Your task to perform on an android device: empty trash in the gmail app Image 0: 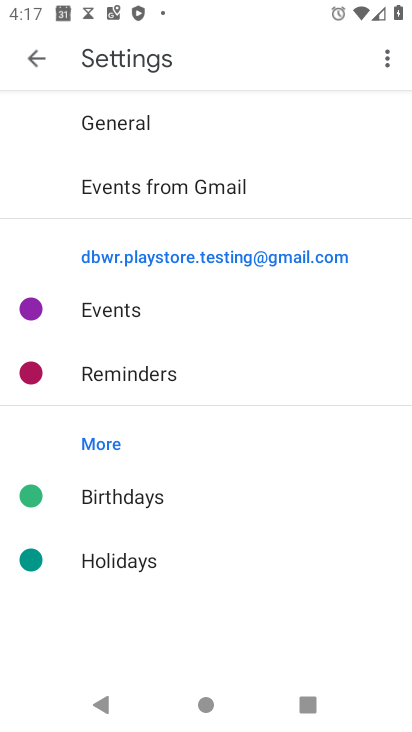
Step 0: press home button
Your task to perform on an android device: empty trash in the gmail app Image 1: 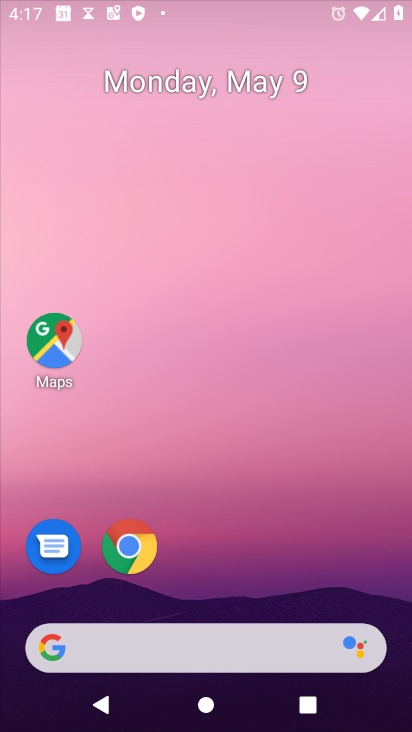
Step 1: drag from (298, 202) to (408, 21)
Your task to perform on an android device: empty trash in the gmail app Image 2: 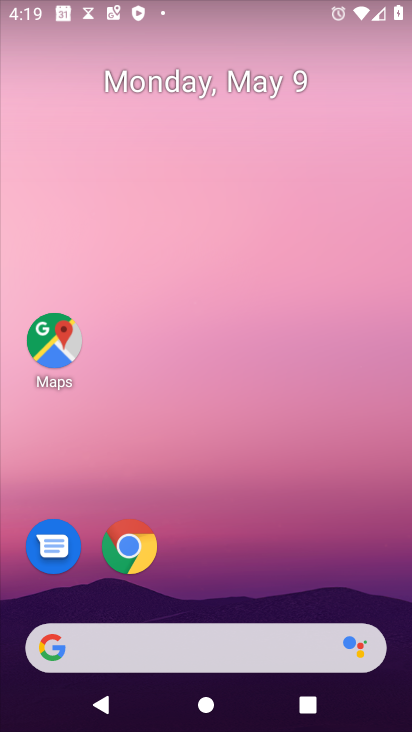
Step 2: drag from (316, 529) to (286, 159)
Your task to perform on an android device: empty trash in the gmail app Image 3: 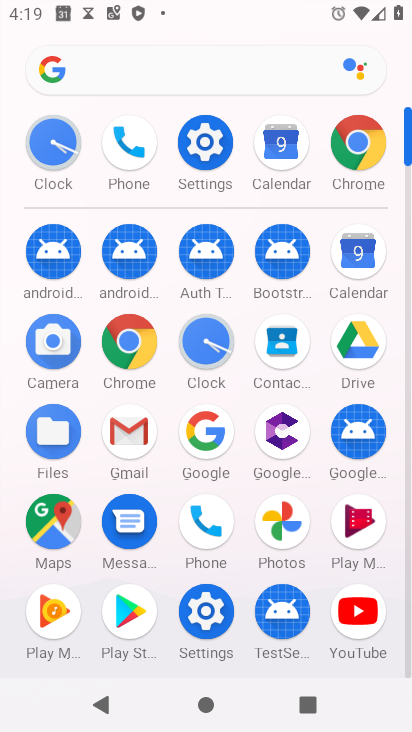
Step 3: drag from (316, 598) to (292, 212)
Your task to perform on an android device: empty trash in the gmail app Image 4: 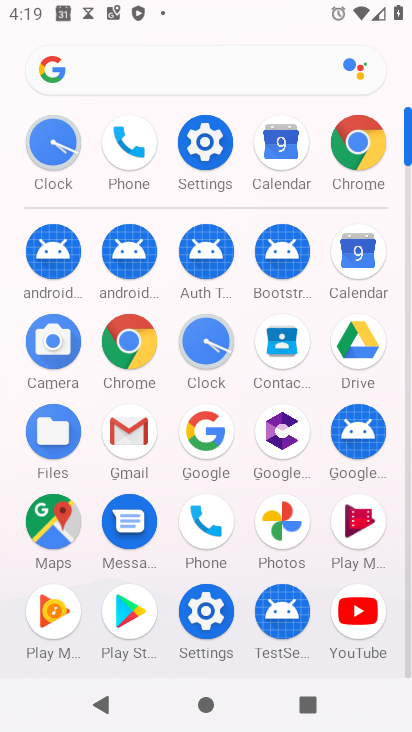
Step 4: click (127, 414)
Your task to perform on an android device: empty trash in the gmail app Image 5: 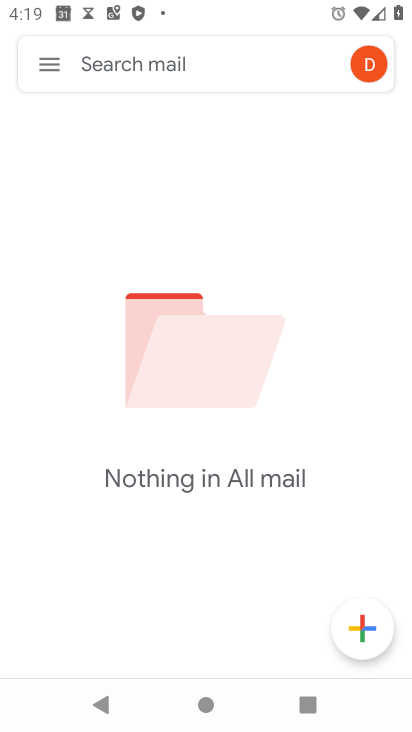
Step 5: click (49, 56)
Your task to perform on an android device: empty trash in the gmail app Image 6: 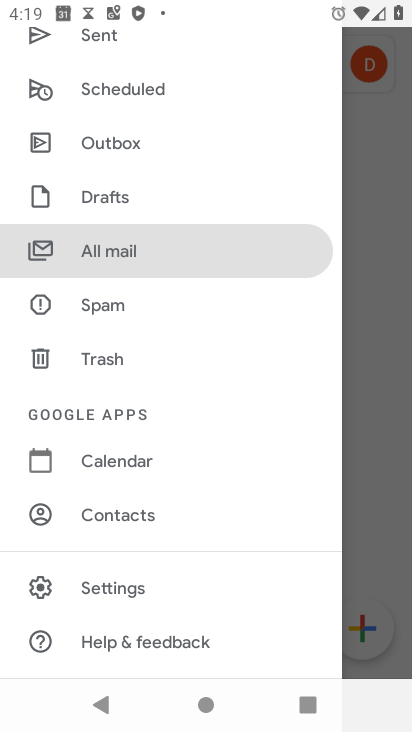
Step 6: click (98, 358)
Your task to perform on an android device: empty trash in the gmail app Image 7: 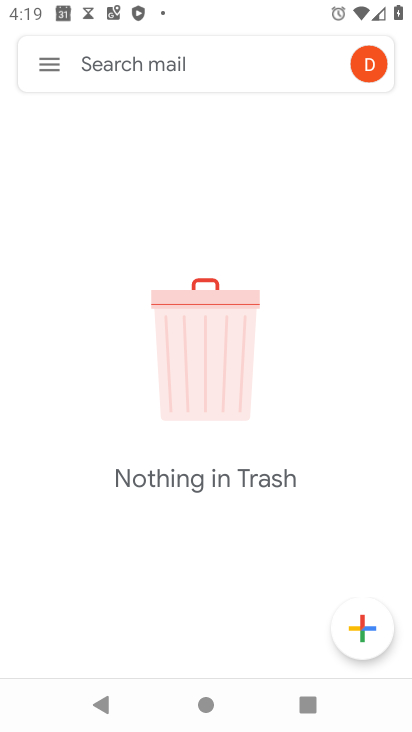
Step 7: click (37, 58)
Your task to perform on an android device: empty trash in the gmail app Image 8: 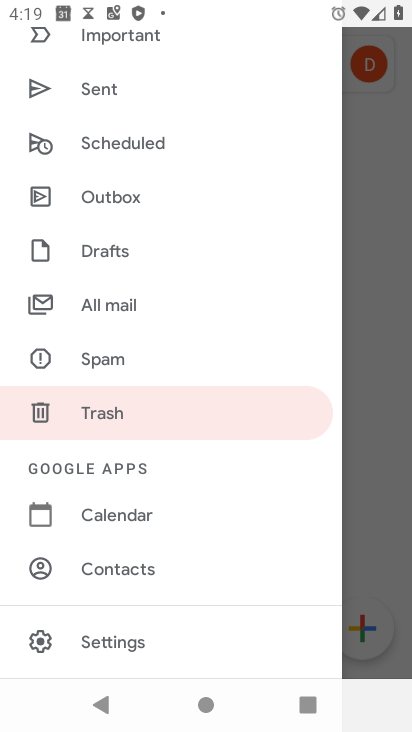
Step 8: task complete